Your task to perform on an android device: Open Amazon Image 0: 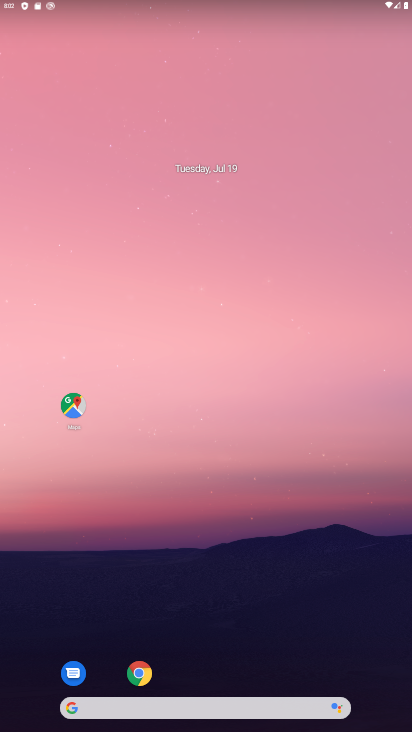
Step 0: click (143, 679)
Your task to perform on an android device: Open Amazon Image 1: 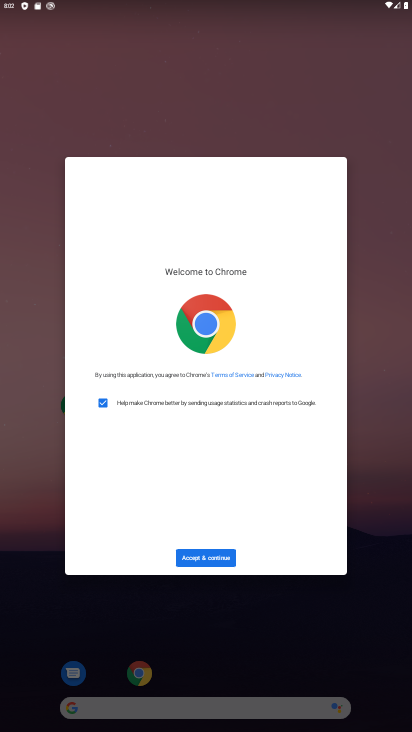
Step 1: click (225, 554)
Your task to perform on an android device: Open Amazon Image 2: 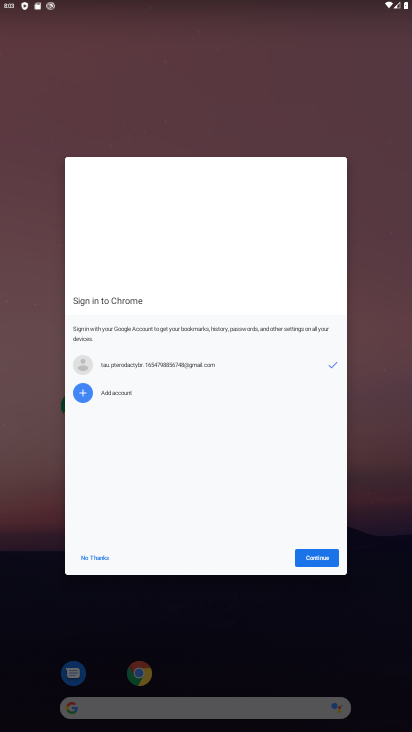
Step 2: click (312, 560)
Your task to perform on an android device: Open Amazon Image 3: 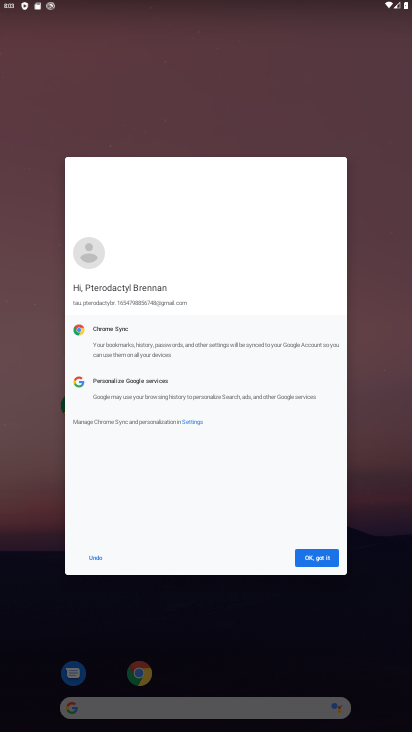
Step 3: click (312, 560)
Your task to perform on an android device: Open Amazon Image 4: 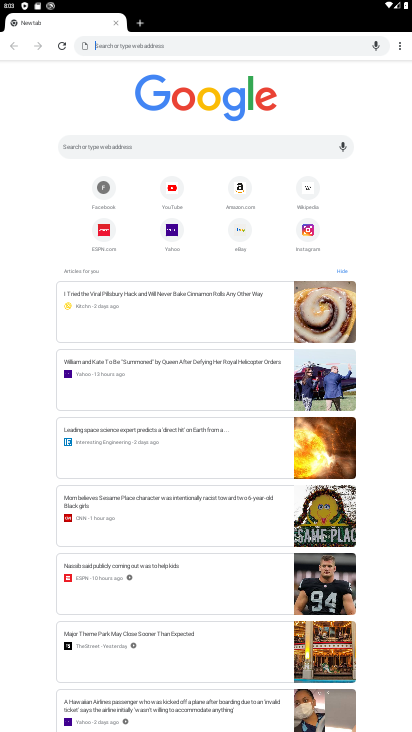
Step 4: click (243, 181)
Your task to perform on an android device: Open Amazon Image 5: 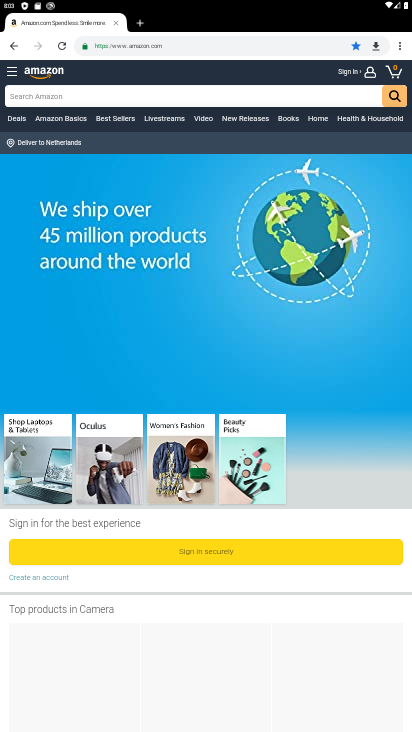
Step 5: task complete